Your task to perform on an android device: Open Yahoo.com Image 0: 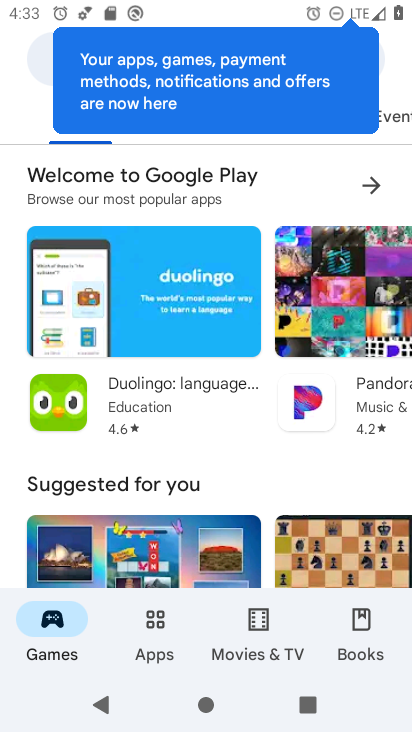
Step 0: press home button
Your task to perform on an android device: Open Yahoo.com Image 1: 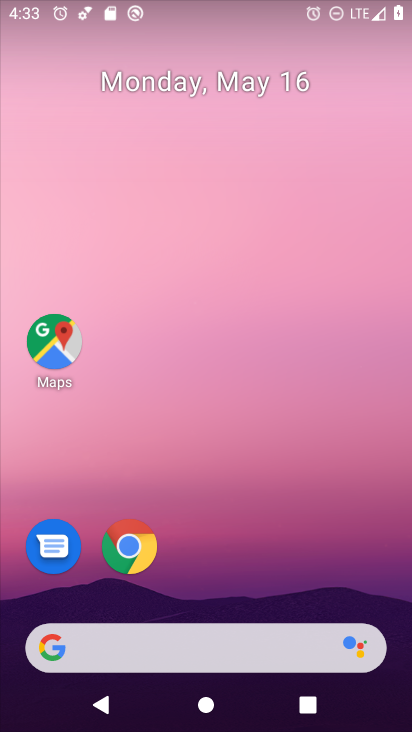
Step 1: drag from (309, 577) to (314, 119)
Your task to perform on an android device: Open Yahoo.com Image 2: 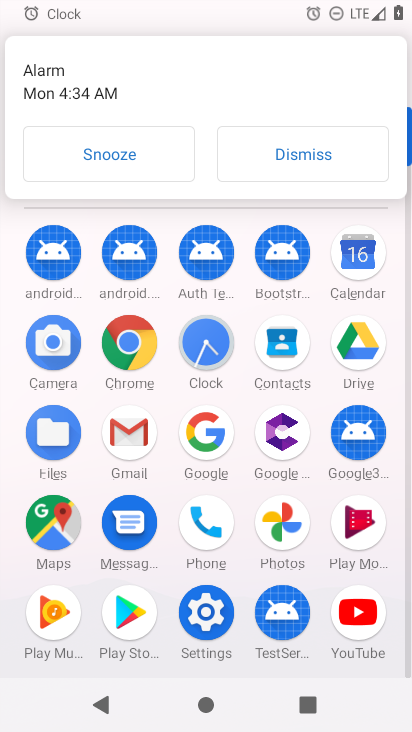
Step 2: click (133, 356)
Your task to perform on an android device: Open Yahoo.com Image 3: 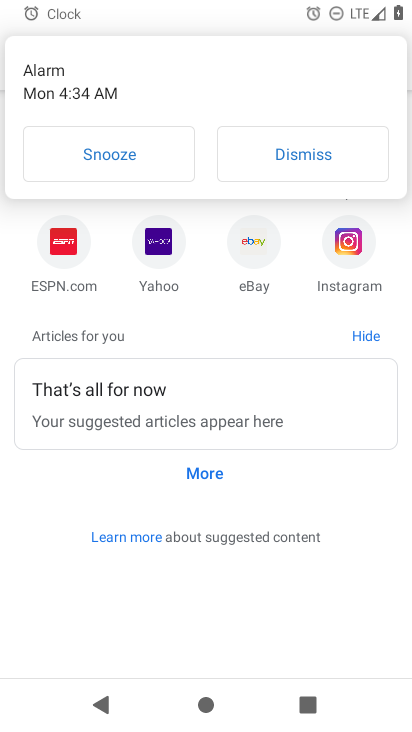
Step 3: click (171, 267)
Your task to perform on an android device: Open Yahoo.com Image 4: 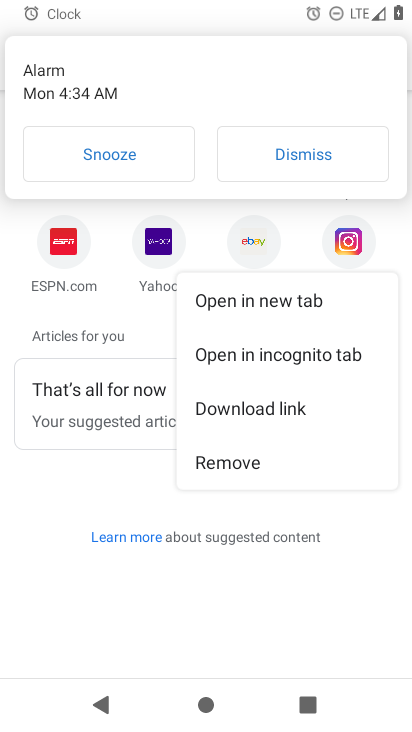
Step 4: click (152, 235)
Your task to perform on an android device: Open Yahoo.com Image 5: 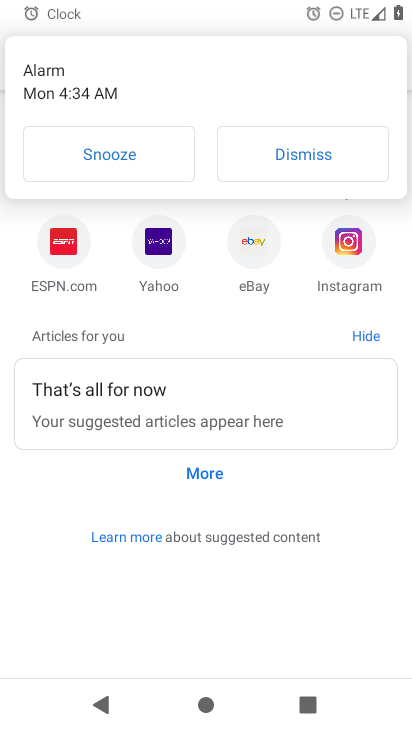
Step 5: click (168, 283)
Your task to perform on an android device: Open Yahoo.com Image 6: 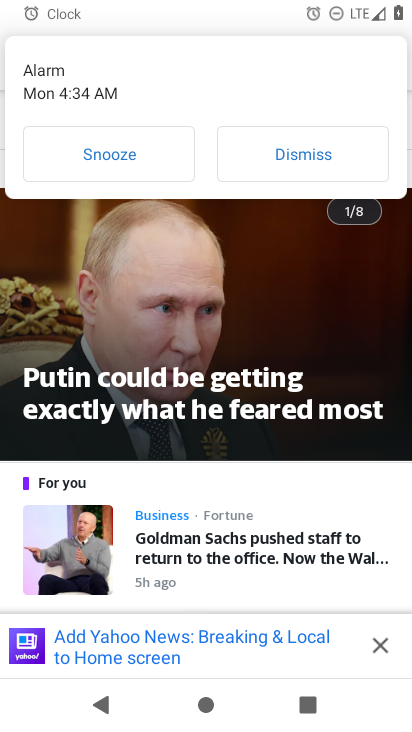
Step 6: task complete